Your task to perform on an android device: turn off notifications settings in the gmail app Image 0: 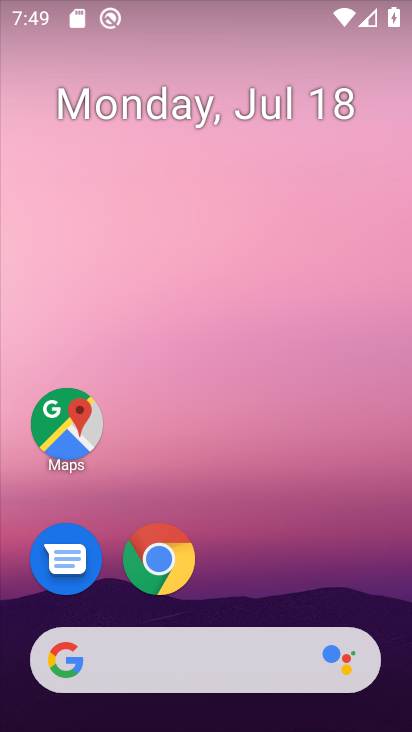
Step 0: drag from (309, 600) to (363, 111)
Your task to perform on an android device: turn off notifications settings in the gmail app Image 1: 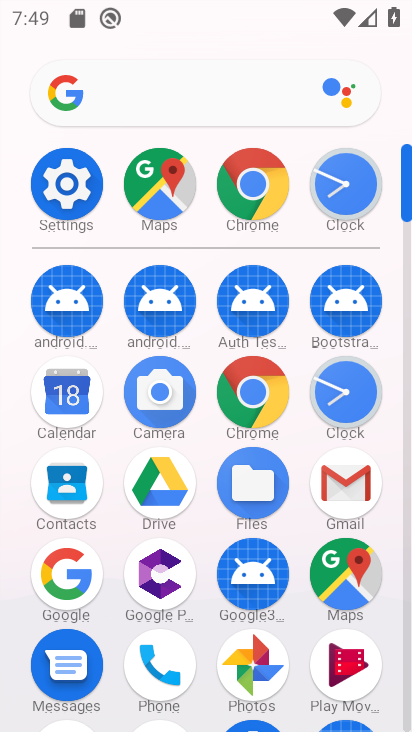
Step 1: click (347, 480)
Your task to perform on an android device: turn off notifications settings in the gmail app Image 2: 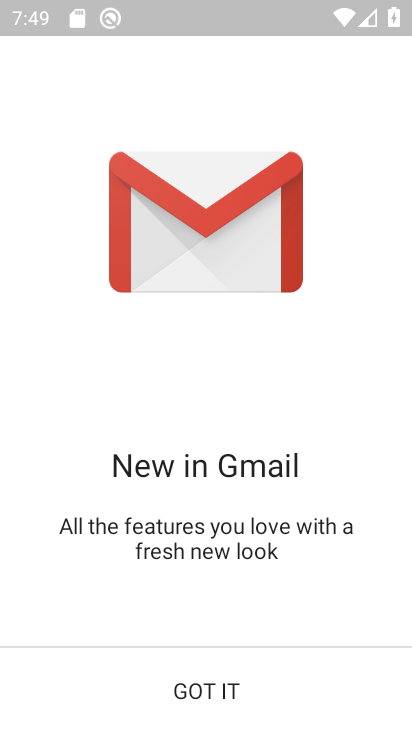
Step 2: click (221, 673)
Your task to perform on an android device: turn off notifications settings in the gmail app Image 3: 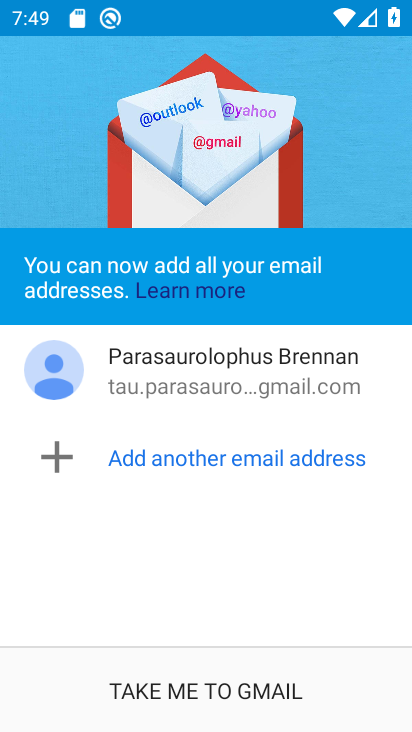
Step 3: click (221, 673)
Your task to perform on an android device: turn off notifications settings in the gmail app Image 4: 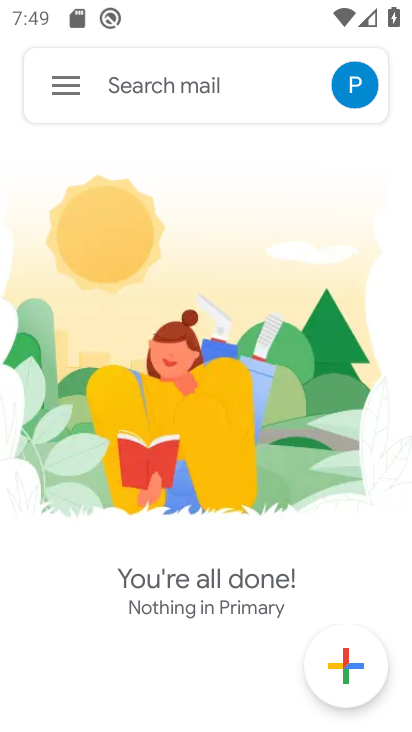
Step 4: click (62, 86)
Your task to perform on an android device: turn off notifications settings in the gmail app Image 5: 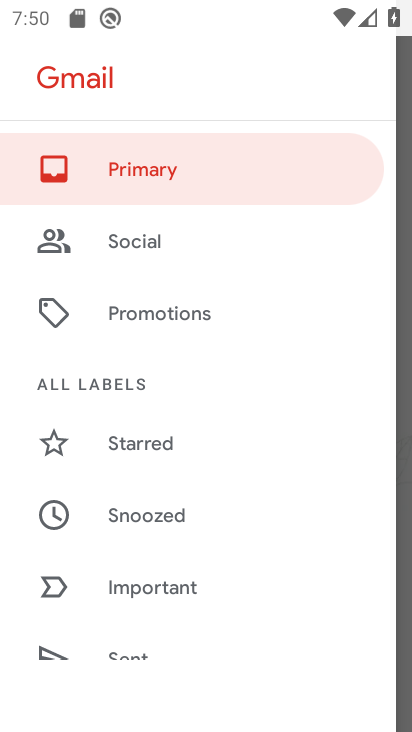
Step 5: drag from (304, 433) to (315, 375)
Your task to perform on an android device: turn off notifications settings in the gmail app Image 6: 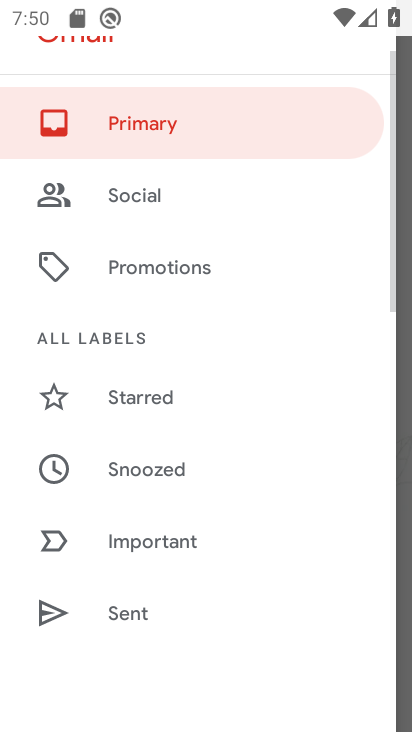
Step 6: drag from (307, 436) to (314, 372)
Your task to perform on an android device: turn off notifications settings in the gmail app Image 7: 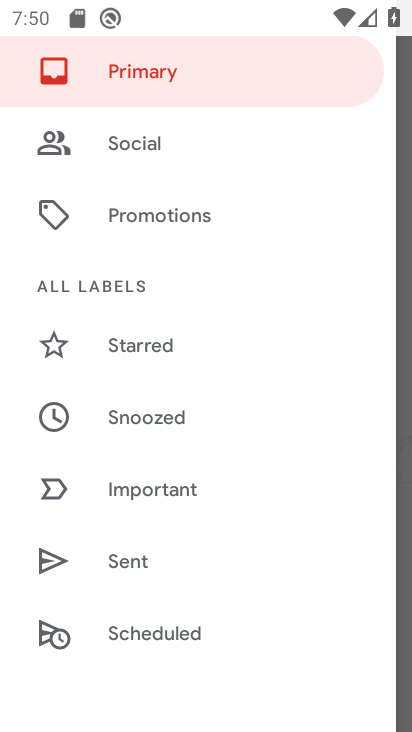
Step 7: drag from (316, 419) to (317, 361)
Your task to perform on an android device: turn off notifications settings in the gmail app Image 8: 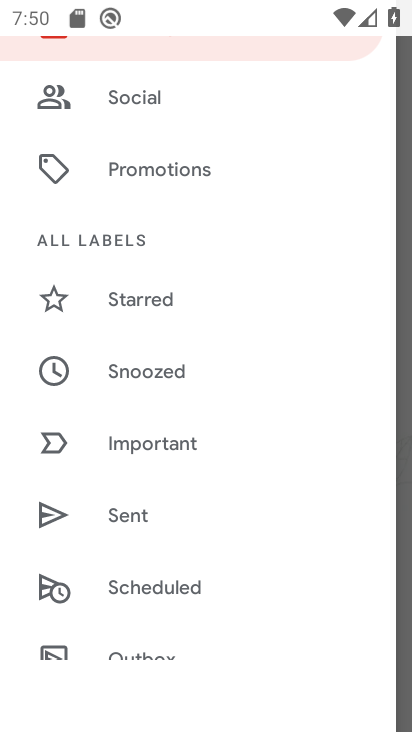
Step 8: drag from (303, 408) to (309, 333)
Your task to perform on an android device: turn off notifications settings in the gmail app Image 9: 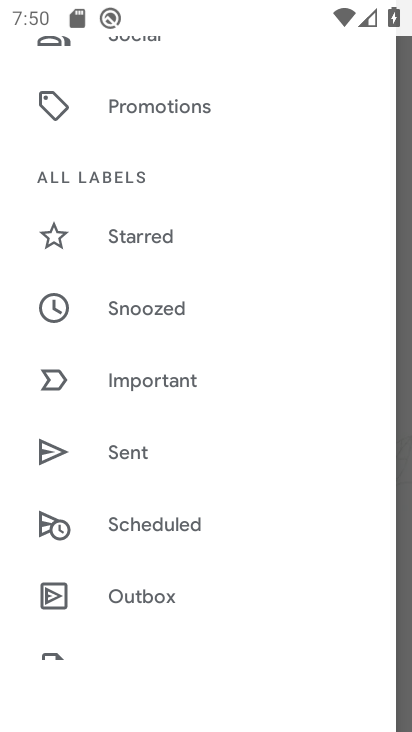
Step 9: drag from (298, 401) to (305, 321)
Your task to perform on an android device: turn off notifications settings in the gmail app Image 10: 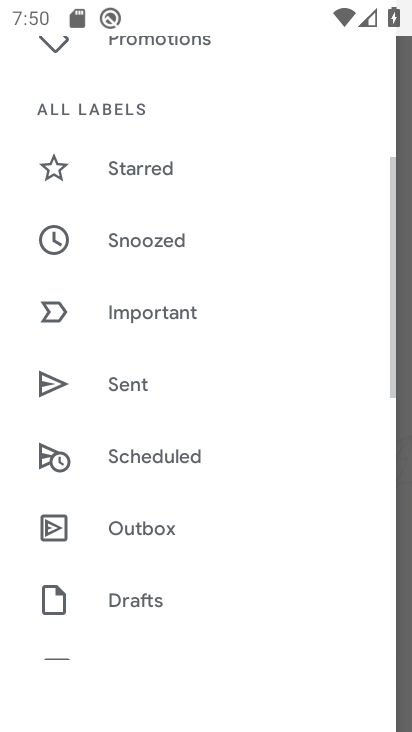
Step 10: drag from (314, 397) to (317, 309)
Your task to perform on an android device: turn off notifications settings in the gmail app Image 11: 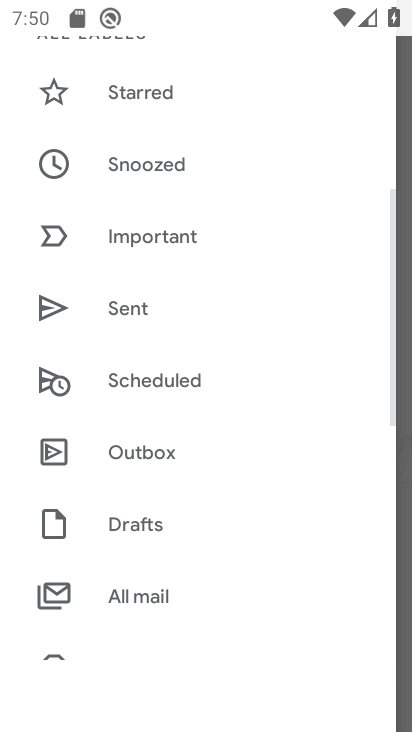
Step 11: drag from (301, 411) to (306, 350)
Your task to perform on an android device: turn off notifications settings in the gmail app Image 12: 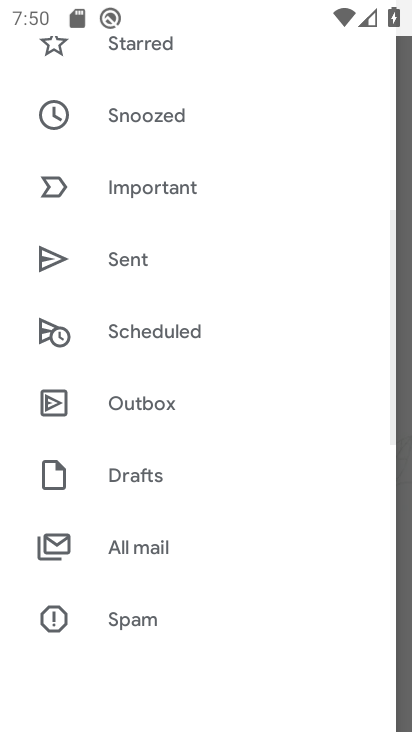
Step 12: drag from (298, 406) to (301, 332)
Your task to perform on an android device: turn off notifications settings in the gmail app Image 13: 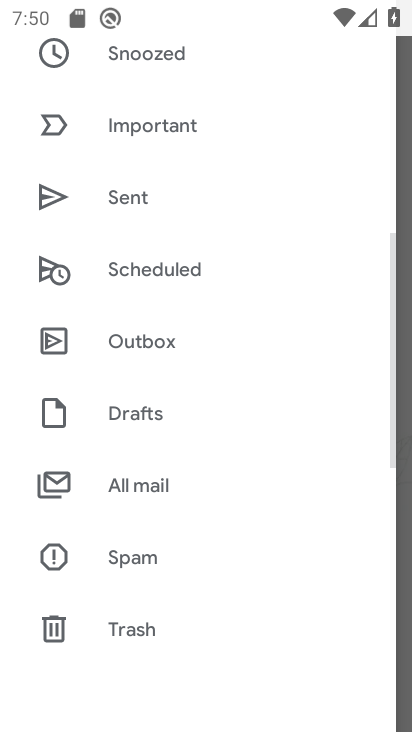
Step 13: drag from (274, 416) to (277, 341)
Your task to perform on an android device: turn off notifications settings in the gmail app Image 14: 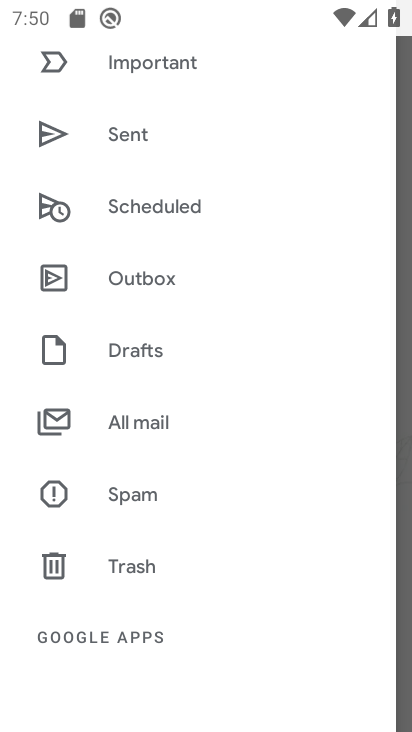
Step 14: drag from (277, 419) to (284, 327)
Your task to perform on an android device: turn off notifications settings in the gmail app Image 15: 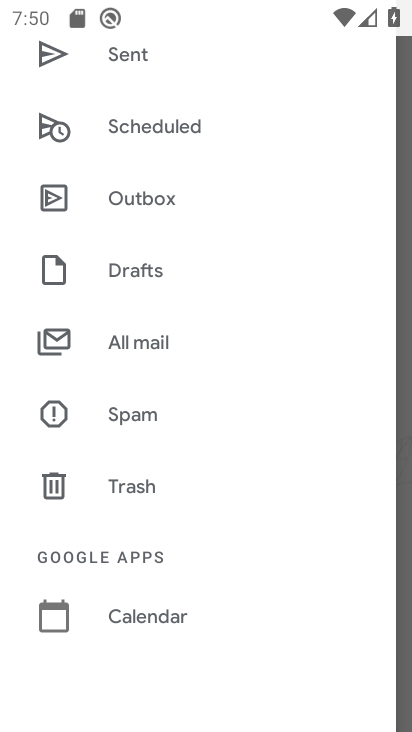
Step 15: drag from (278, 433) to (280, 335)
Your task to perform on an android device: turn off notifications settings in the gmail app Image 16: 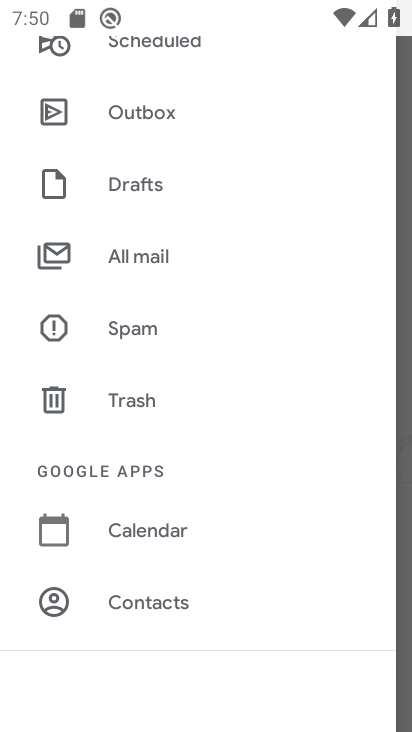
Step 16: drag from (271, 439) to (278, 316)
Your task to perform on an android device: turn off notifications settings in the gmail app Image 17: 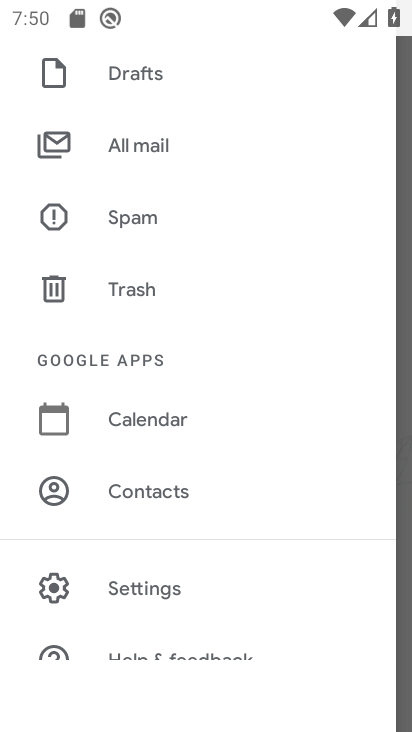
Step 17: drag from (286, 530) to (284, 411)
Your task to perform on an android device: turn off notifications settings in the gmail app Image 18: 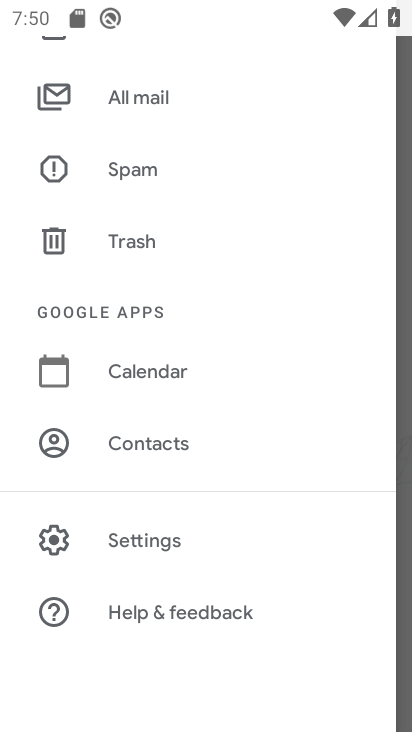
Step 18: click (234, 540)
Your task to perform on an android device: turn off notifications settings in the gmail app Image 19: 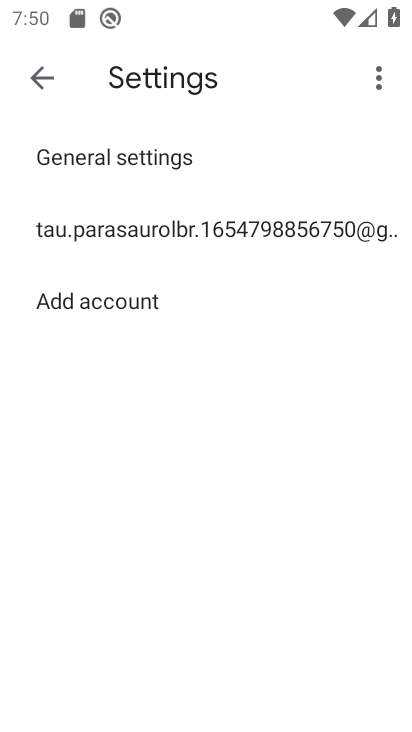
Step 19: click (276, 234)
Your task to perform on an android device: turn off notifications settings in the gmail app Image 20: 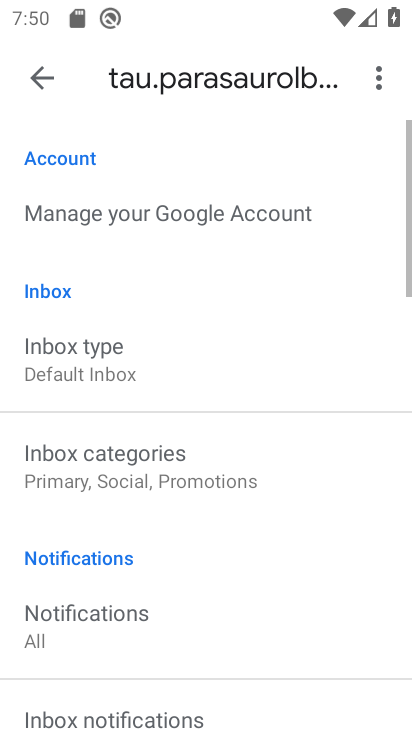
Step 20: drag from (281, 422) to (287, 355)
Your task to perform on an android device: turn off notifications settings in the gmail app Image 21: 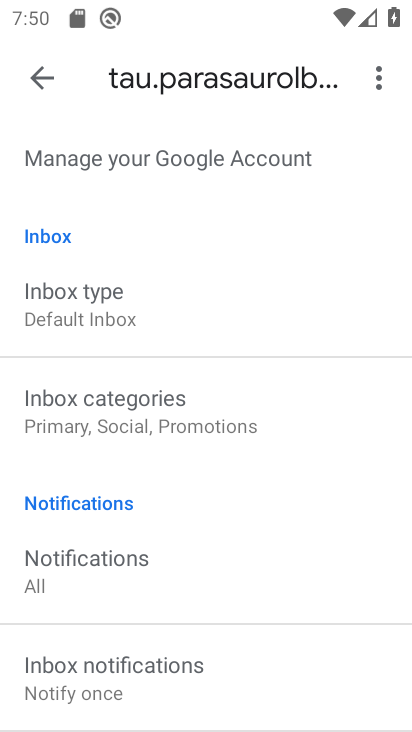
Step 21: drag from (284, 469) to (282, 370)
Your task to perform on an android device: turn off notifications settings in the gmail app Image 22: 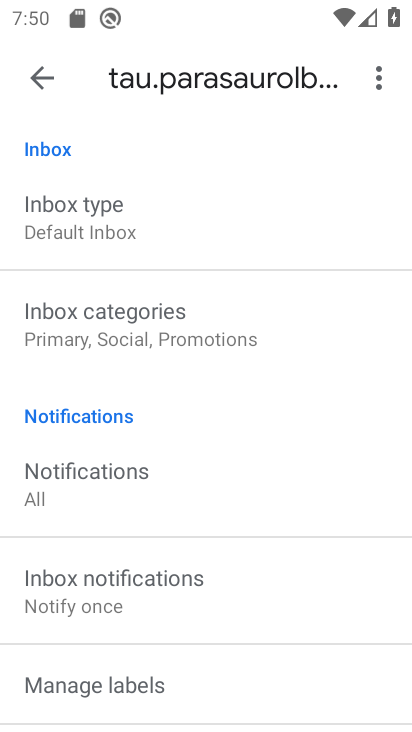
Step 22: drag from (278, 513) to (279, 400)
Your task to perform on an android device: turn off notifications settings in the gmail app Image 23: 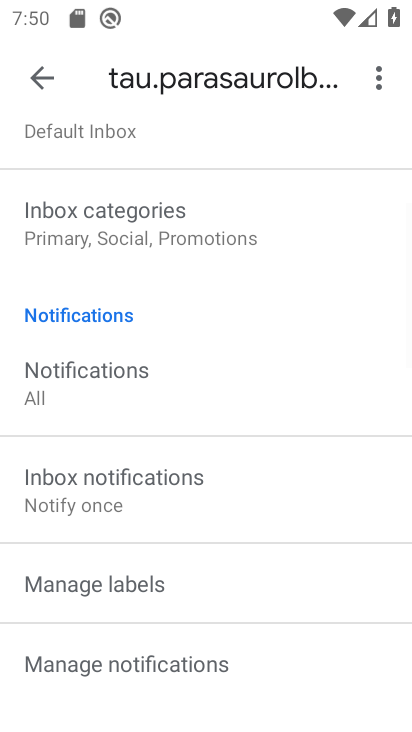
Step 23: drag from (272, 528) to (282, 421)
Your task to perform on an android device: turn off notifications settings in the gmail app Image 24: 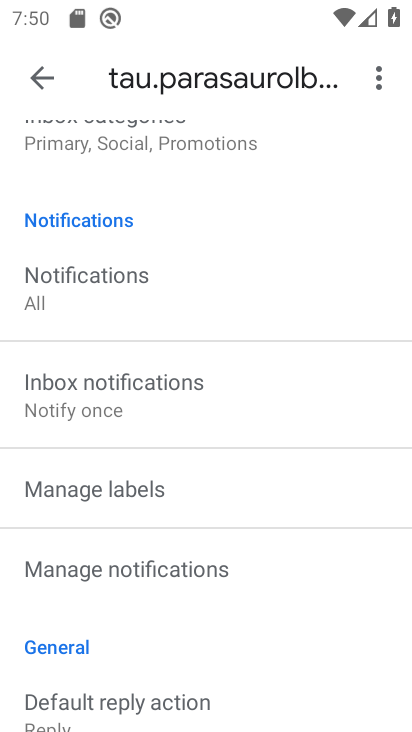
Step 24: drag from (274, 512) to (277, 417)
Your task to perform on an android device: turn off notifications settings in the gmail app Image 25: 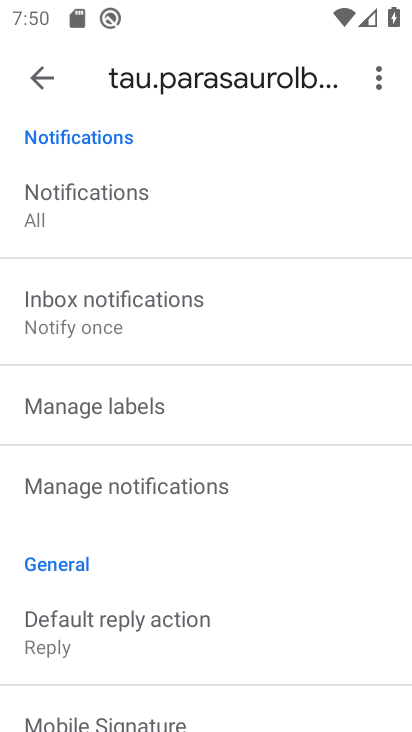
Step 25: drag from (278, 512) to (285, 419)
Your task to perform on an android device: turn off notifications settings in the gmail app Image 26: 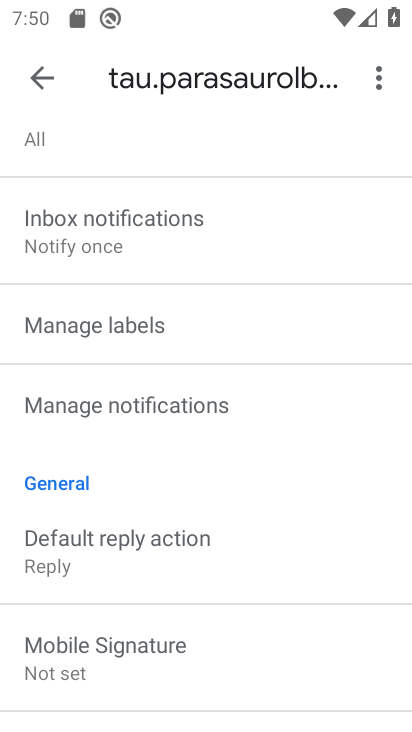
Step 26: click (282, 405)
Your task to perform on an android device: turn off notifications settings in the gmail app Image 27: 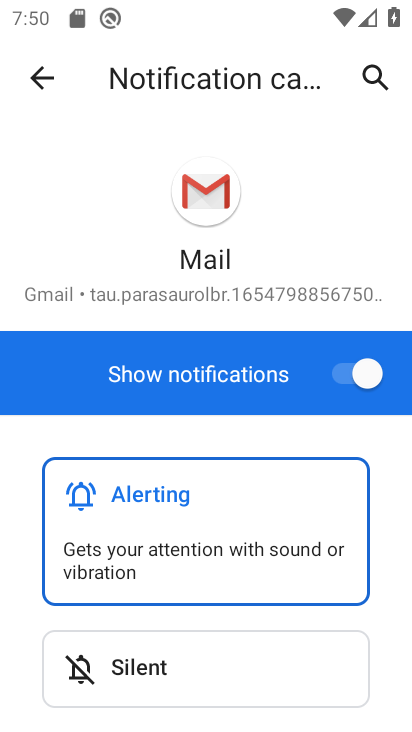
Step 27: click (351, 382)
Your task to perform on an android device: turn off notifications settings in the gmail app Image 28: 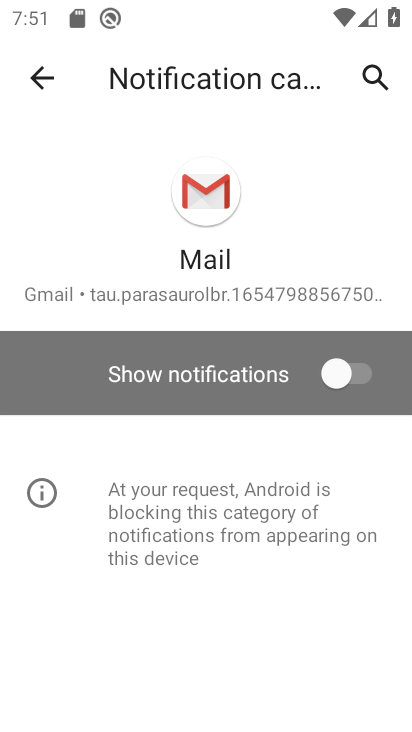
Step 28: task complete